Your task to perform on an android device: Open Chrome and go to the settings page Image 0: 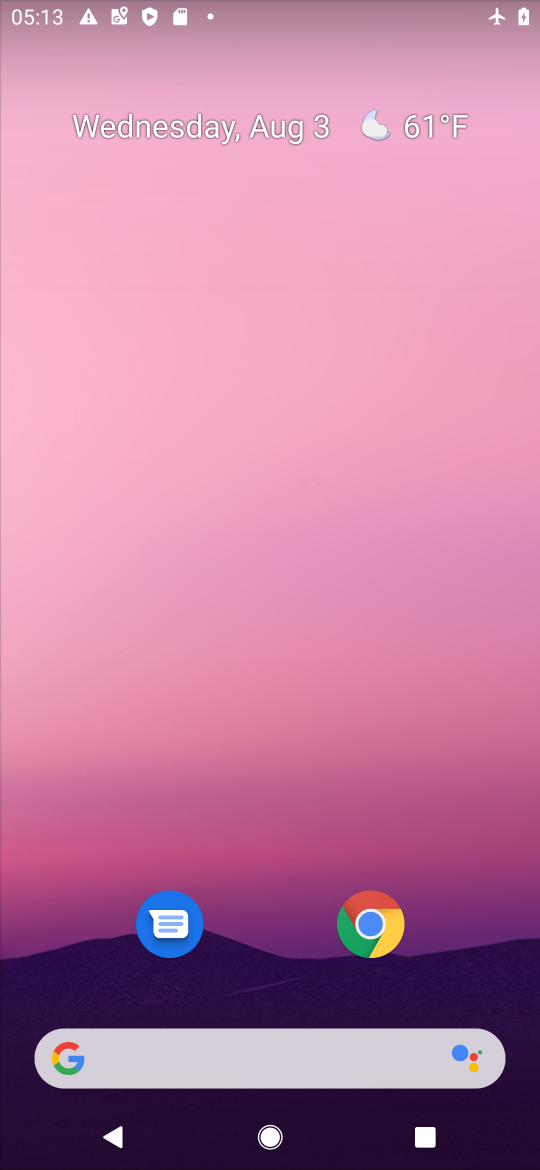
Step 0: click (375, 926)
Your task to perform on an android device: Open Chrome and go to the settings page Image 1: 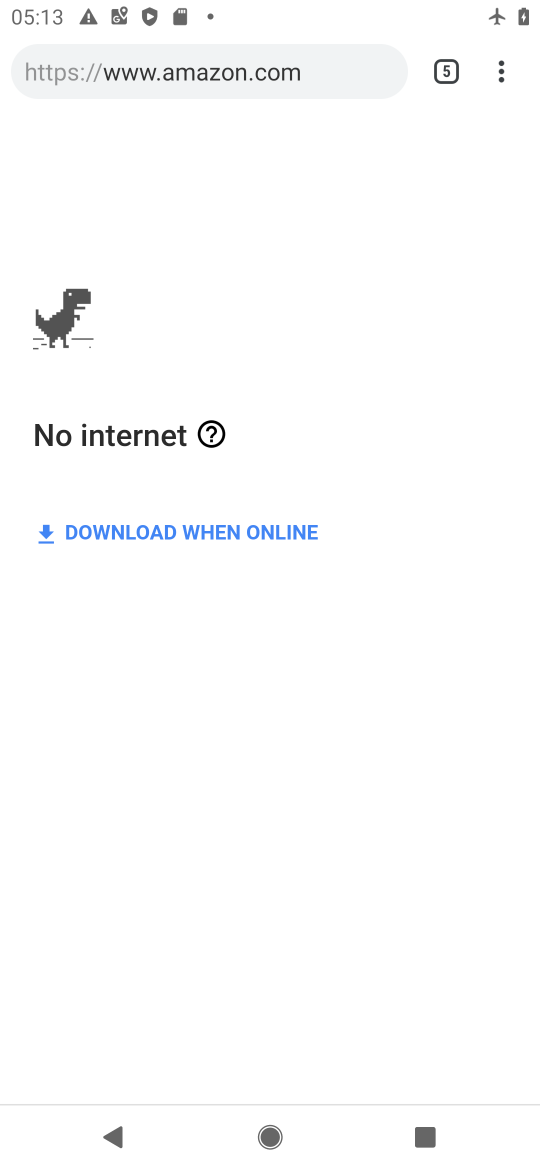
Step 1: click (504, 70)
Your task to perform on an android device: Open Chrome and go to the settings page Image 2: 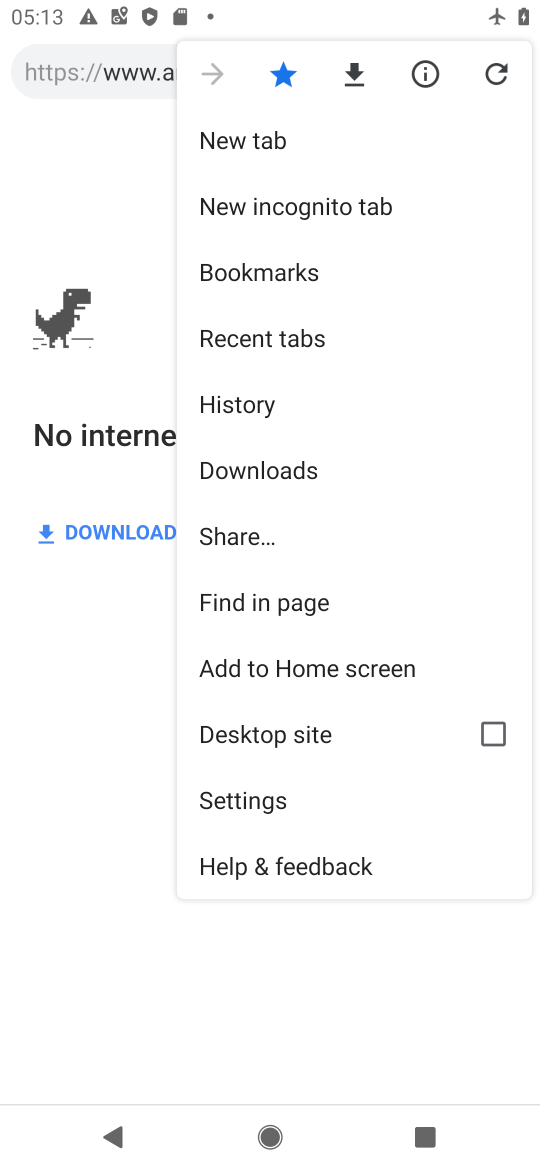
Step 2: click (252, 792)
Your task to perform on an android device: Open Chrome and go to the settings page Image 3: 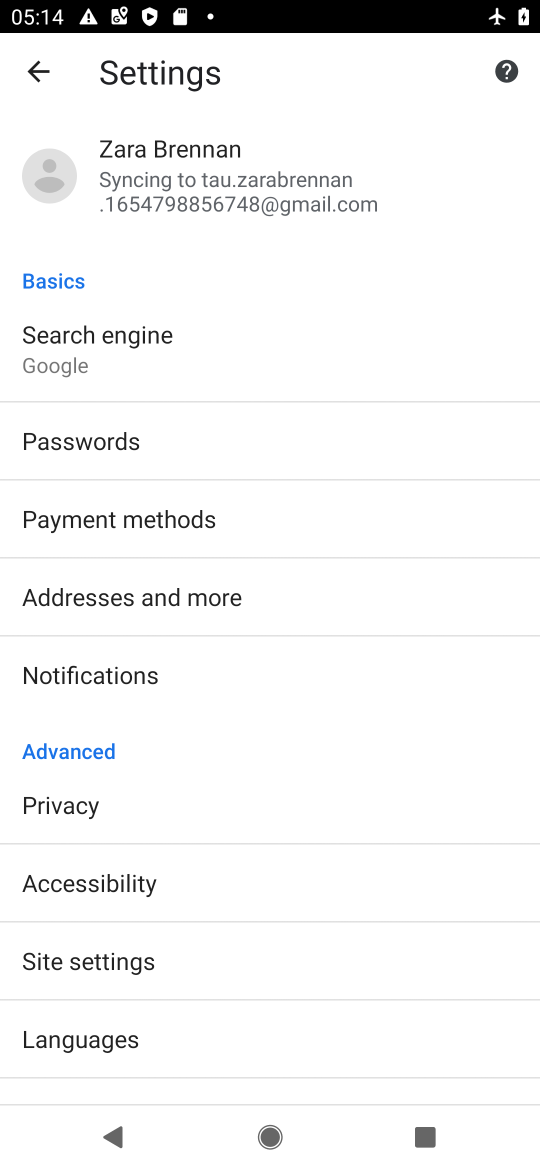
Step 3: task complete